Your task to perform on an android device: toggle notification dots Image 0: 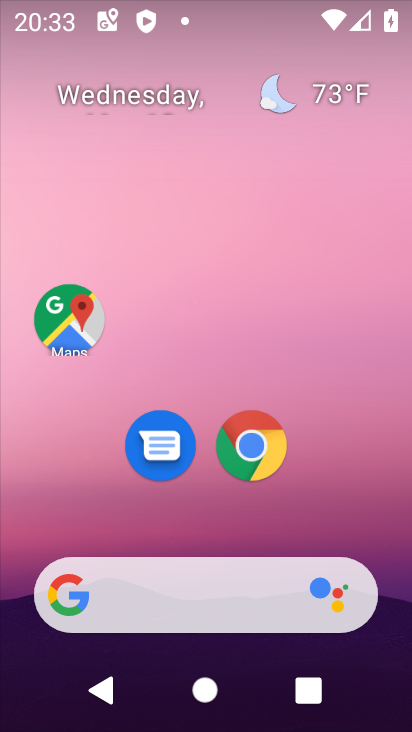
Step 0: drag from (285, 507) to (265, 133)
Your task to perform on an android device: toggle notification dots Image 1: 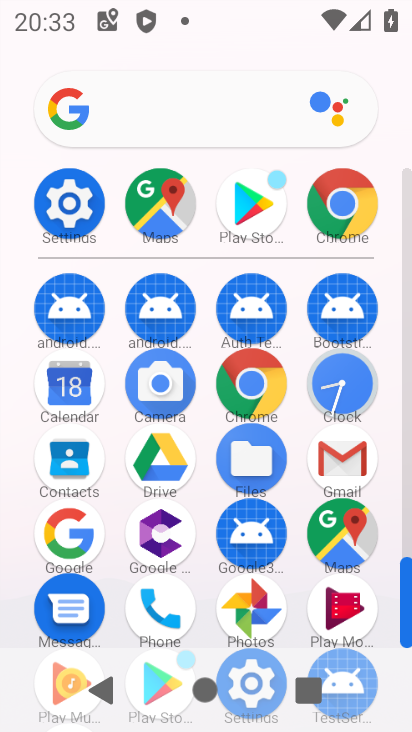
Step 1: click (58, 178)
Your task to perform on an android device: toggle notification dots Image 2: 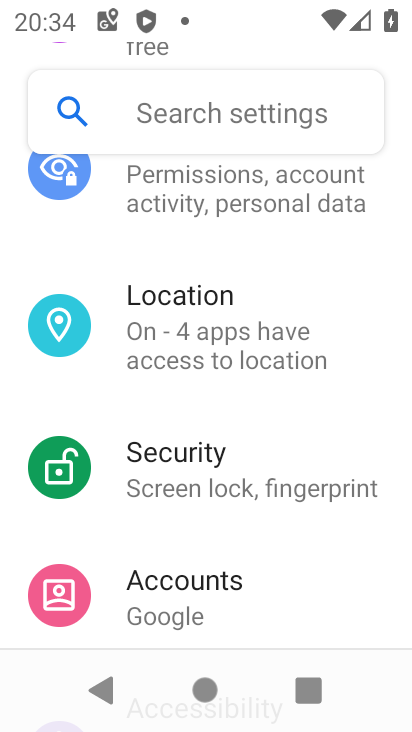
Step 2: click (209, 92)
Your task to perform on an android device: toggle notification dots Image 3: 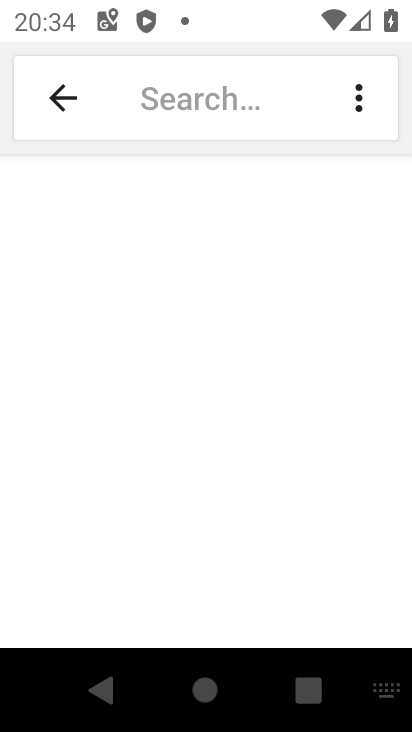
Step 3: click (172, 98)
Your task to perform on an android device: toggle notification dots Image 4: 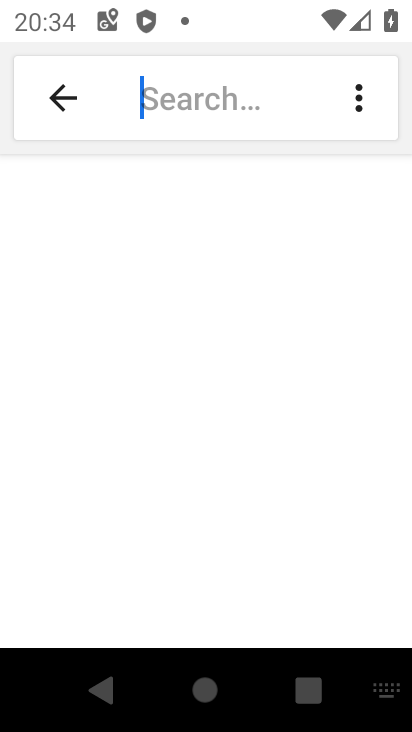
Step 4: type " notification dots"
Your task to perform on an android device: toggle notification dots Image 5: 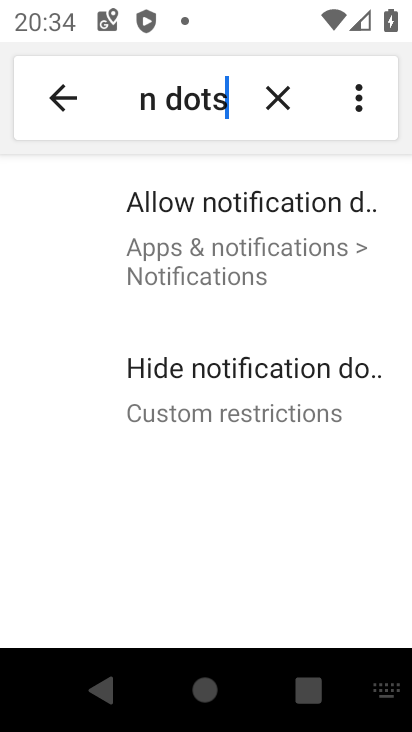
Step 5: click (189, 224)
Your task to perform on an android device: toggle notification dots Image 6: 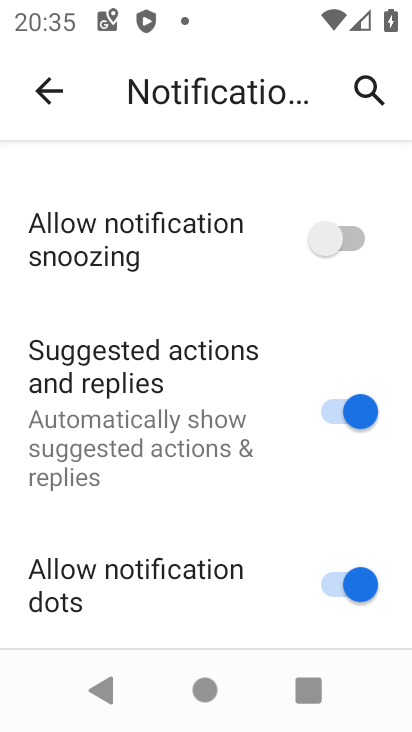
Step 6: task complete